Your task to perform on an android device: allow notifications from all sites in the chrome app Image 0: 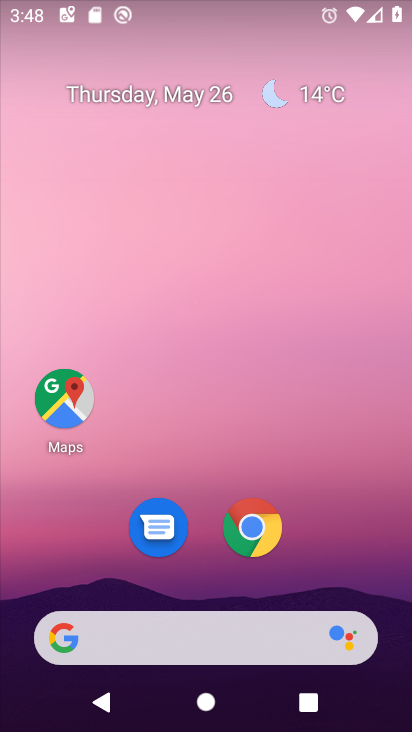
Step 0: click (258, 532)
Your task to perform on an android device: allow notifications from all sites in the chrome app Image 1: 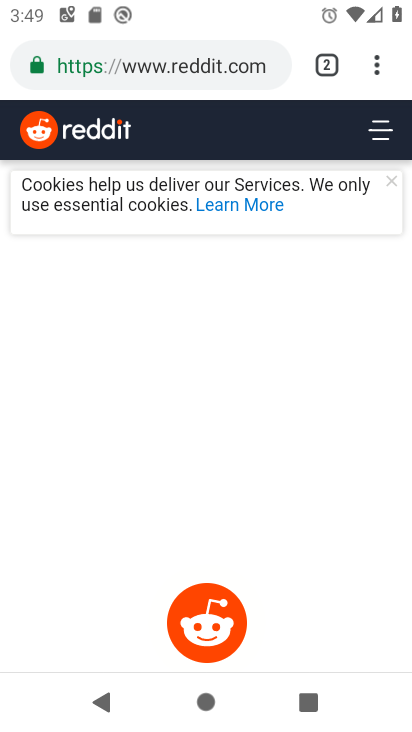
Step 1: click (376, 70)
Your task to perform on an android device: allow notifications from all sites in the chrome app Image 2: 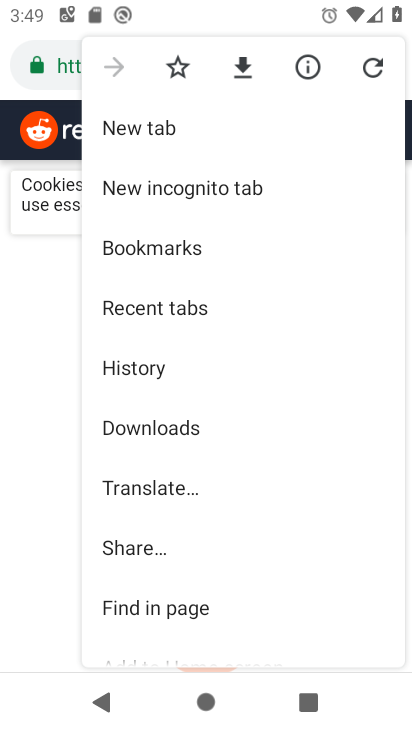
Step 2: drag from (199, 633) to (178, 139)
Your task to perform on an android device: allow notifications from all sites in the chrome app Image 3: 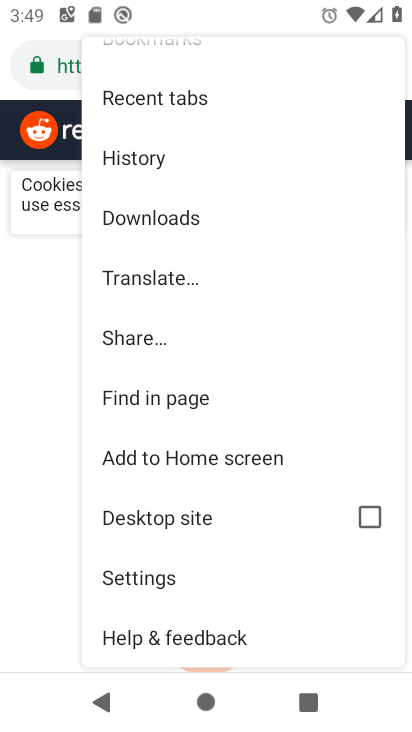
Step 3: click (149, 587)
Your task to perform on an android device: allow notifications from all sites in the chrome app Image 4: 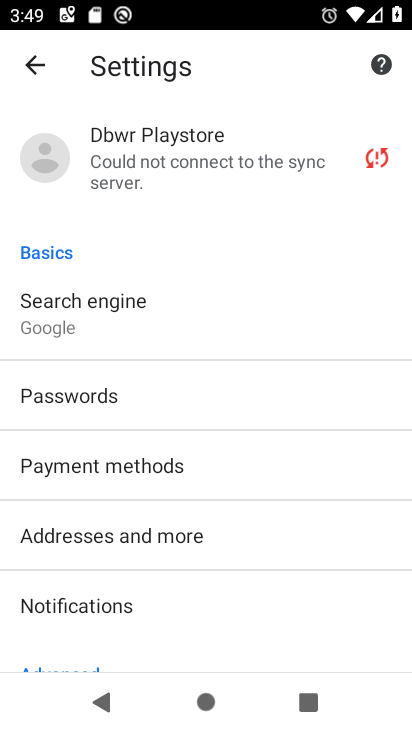
Step 4: drag from (165, 633) to (139, 333)
Your task to perform on an android device: allow notifications from all sites in the chrome app Image 5: 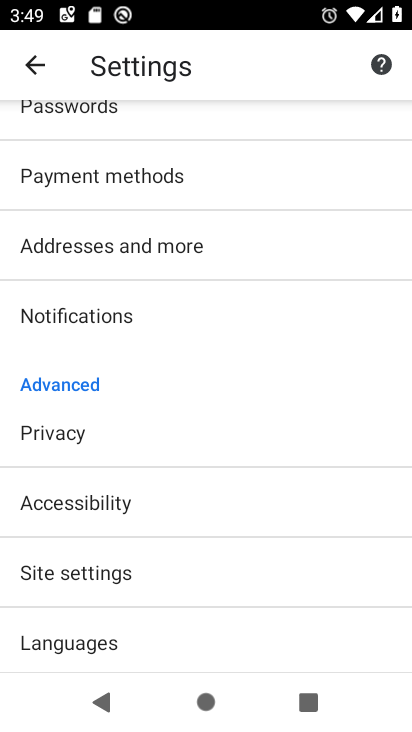
Step 5: click (102, 585)
Your task to perform on an android device: allow notifications from all sites in the chrome app Image 6: 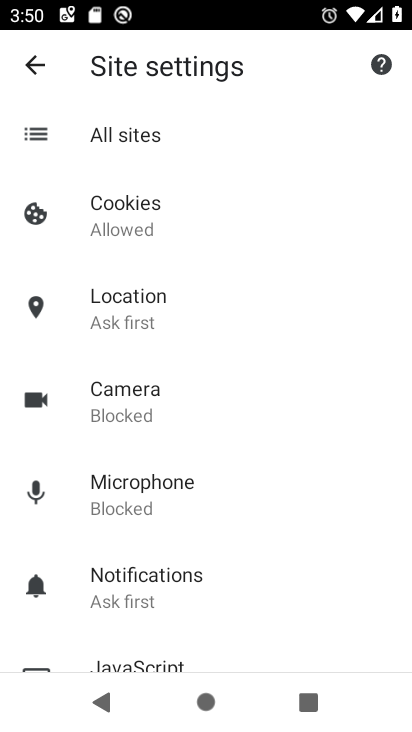
Step 6: click (102, 585)
Your task to perform on an android device: allow notifications from all sites in the chrome app Image 7: 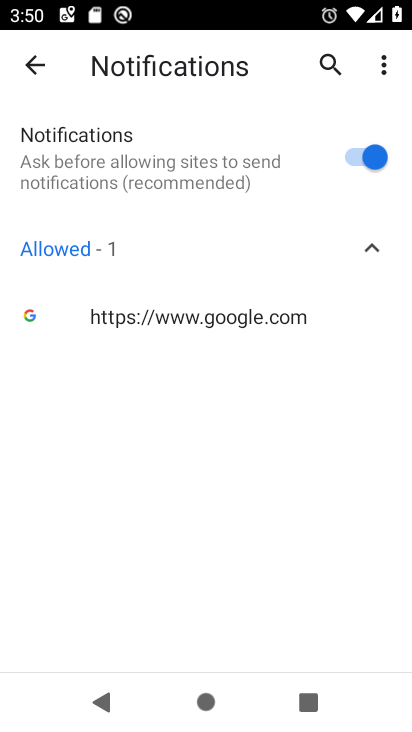
Step 7: task complete